Your task to perform on an android device: View the shopping cart on bestbuy. Search for "logitech g502" on bestbuy, select the first entry, and add it to the cart. Image 0: 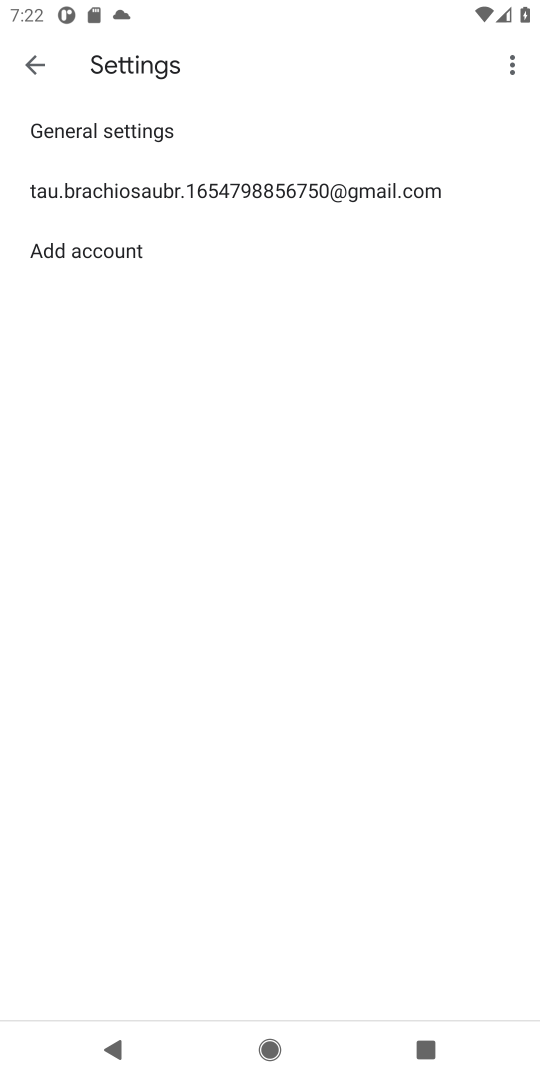
Step 0: click (367, 870)
Your task to perform on an android device: View the shopping cart on bestbuy. Search for "logitech g502" on bestbuy, select the first entry, and add it to the cart. Image 1: 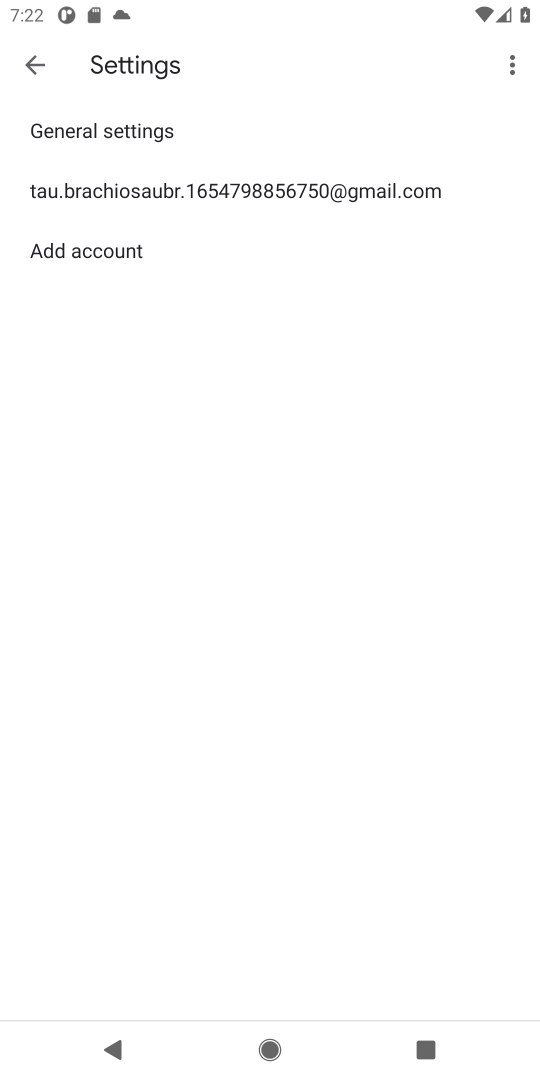
Step 1: press home button
Your task to perform on an android device: View the shopping cart on bestbuy. Search for "logitech g502" on bestbuy, select the first entry, and add it to the cart. Image 2: 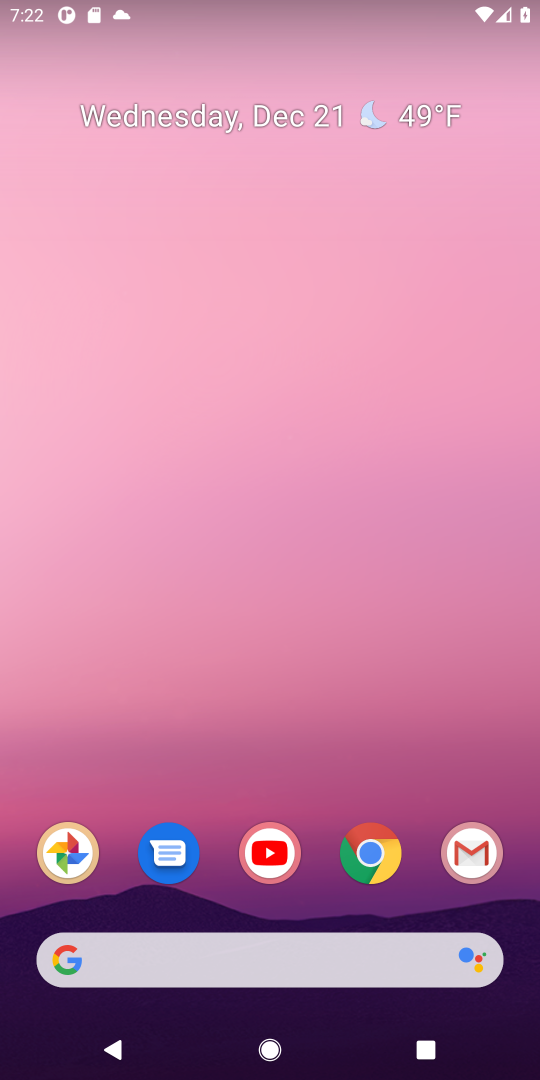
Step 2: click (382, 858)
Your task to perform on an android device: View the shopping cart on bestbuy. Search for "logitech g502" on bestbuy, select the first entry, and add it to the cart. Image 3: 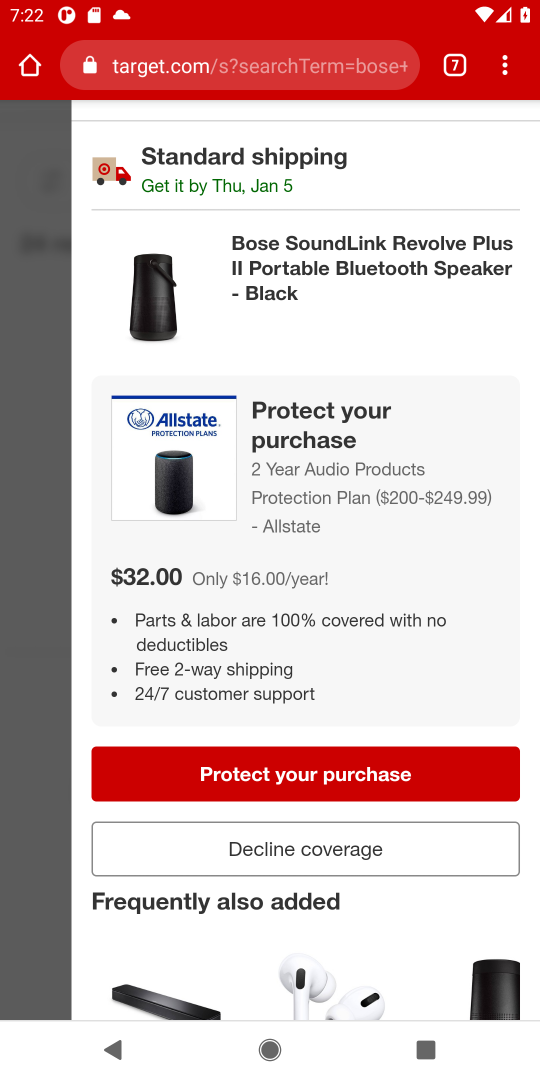
Step 3: click (496, 134)
Your task to perform on an android device: View the shopping cart on bestbuy. Search for "logitech g502" on bestbuy, select the first entry, and add it to the cart. Image 4: 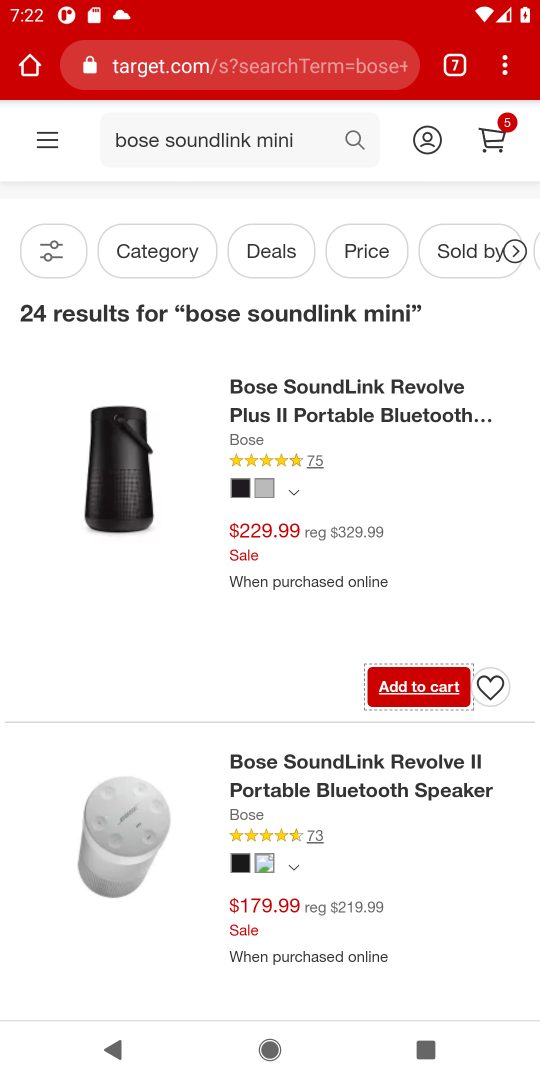
Step 4: click (462, 55)
Your task to perform on an android device: View the shopping cart on bestbuy. Search for "logitech g502" on bestbuy, select the first entry, and add it to the cart. Image 5: 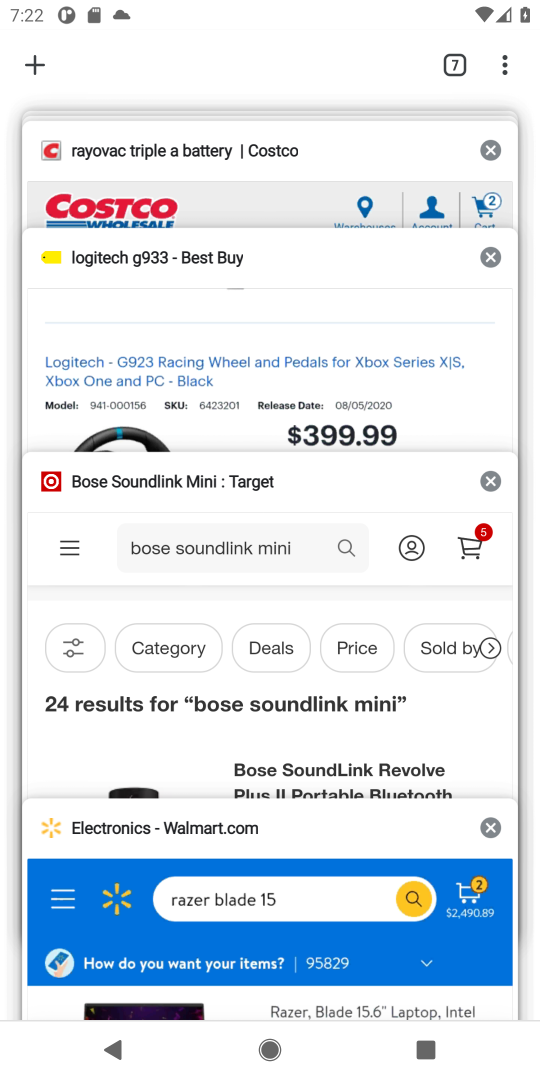
Step 5: click (308, 326)
Your task to perform on an android device: View the shopping cart on bestbuy. Search for "logitech g502" on bestbuy, select the first entry, and add it to the cart. Image 6: 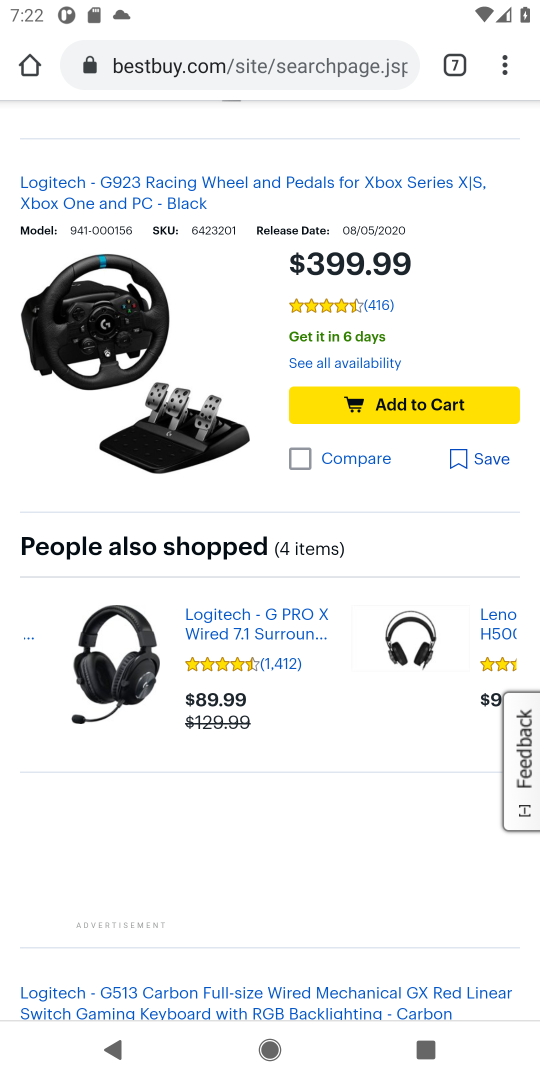
Step 6: drag from (322, 145) to (211, 667)
Your task to perform on an android device: View the shopping cart on bestbuy. Search for "logitech g502" on bestbuy, select the first entry, and add it to the cart. Image 7: 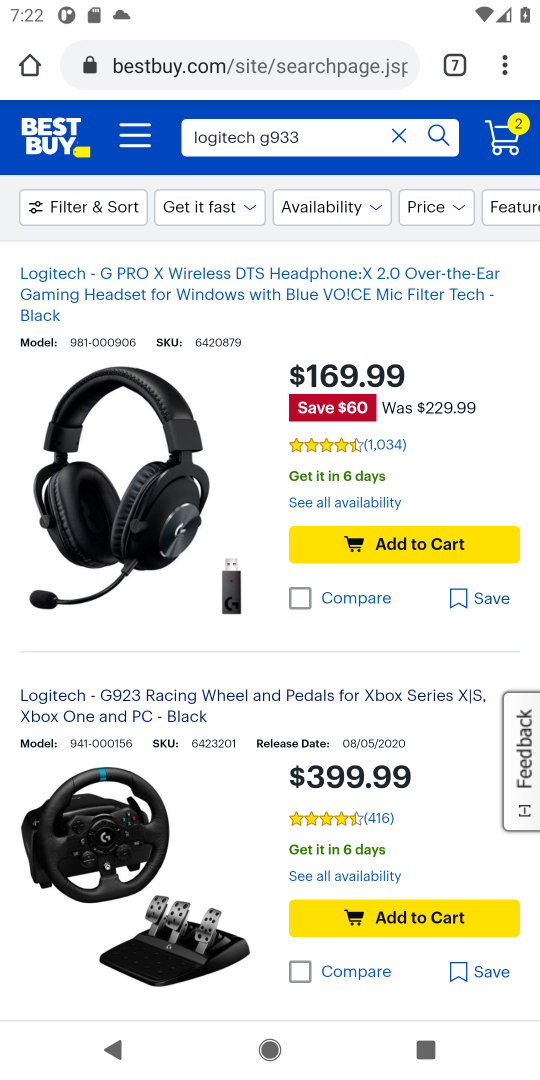
Step 7: click (398, 134)
Your task to perform on an android device: View the shopping cart on bestbuy. Search for "logitech g502" on bestbuy, select the first entry, and add it to the cart. Image 8: 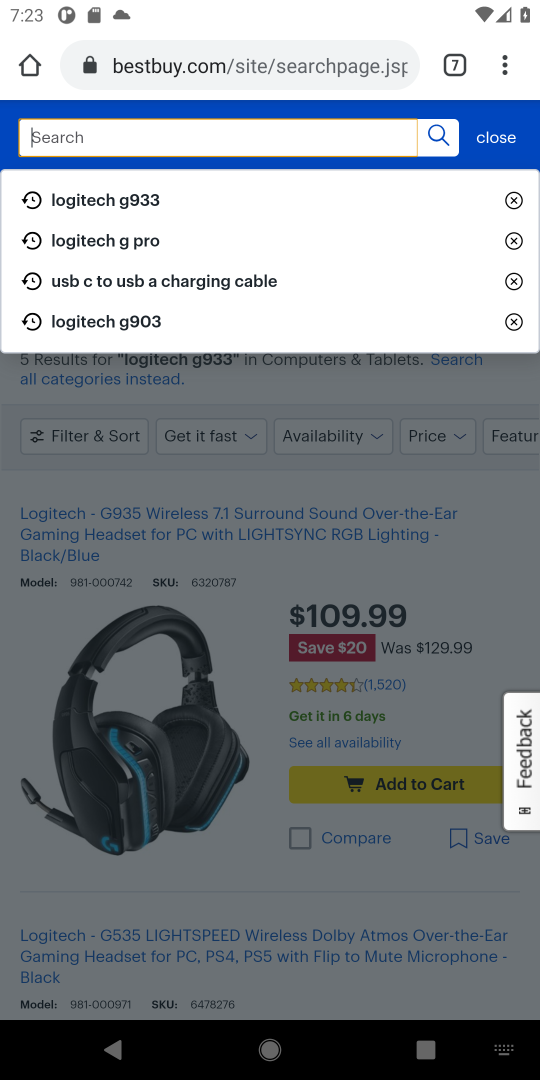
Step 8: type "logitech g502"
Your task to perform on an android device: View the shopping cart on bestbuy. Search for "logitech g502" on bestbuy, select the first entry, and add it to the cart. Image 9: 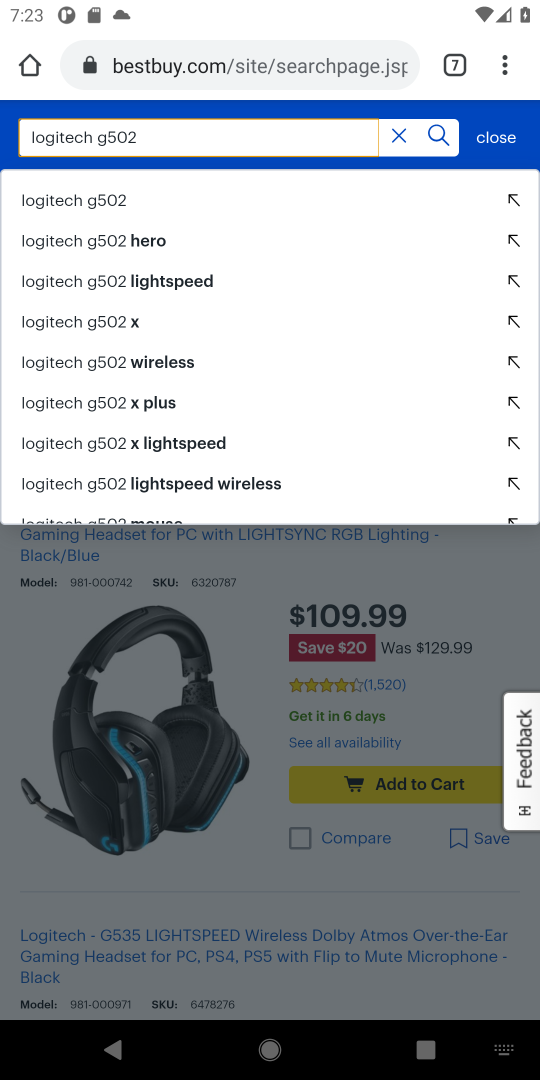
Step 9: click (81, 207)
Your task to perform on an android device: View the shopping cart on bestbuy. Search for "logitech g502" on bestbuy, select the first entry, and add it to the cart. Image 10: 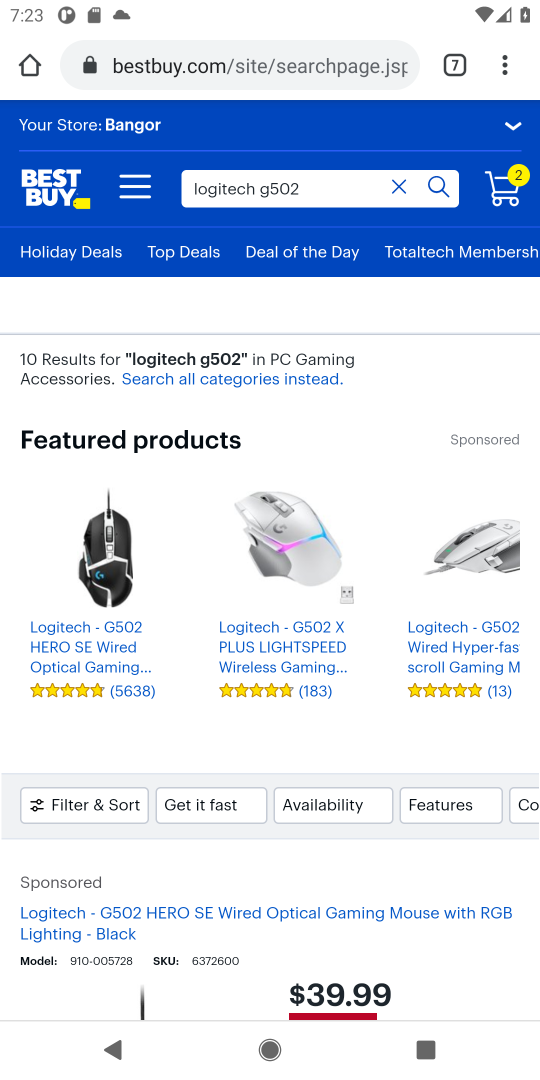
Step 10: drag from (225, 886) to (286, 315)
Your task to perform on an android device: View the shopping cart on bestbuy. Search for "logitech g502" on bestbuy, select the first entry, and add it to the cart. Image 11: 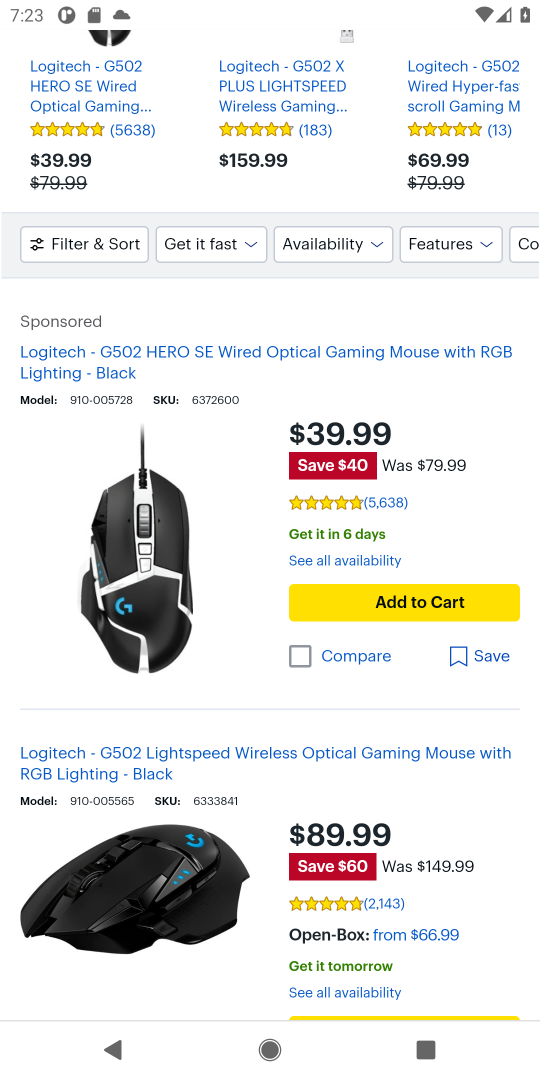
Step 11: click (440, 602)
Your task to perform on an android device: View the shopping cart on bestbuy. Search for "logitech g502" on bestbuy, select the first entry, and add it to the cart. Image 12: 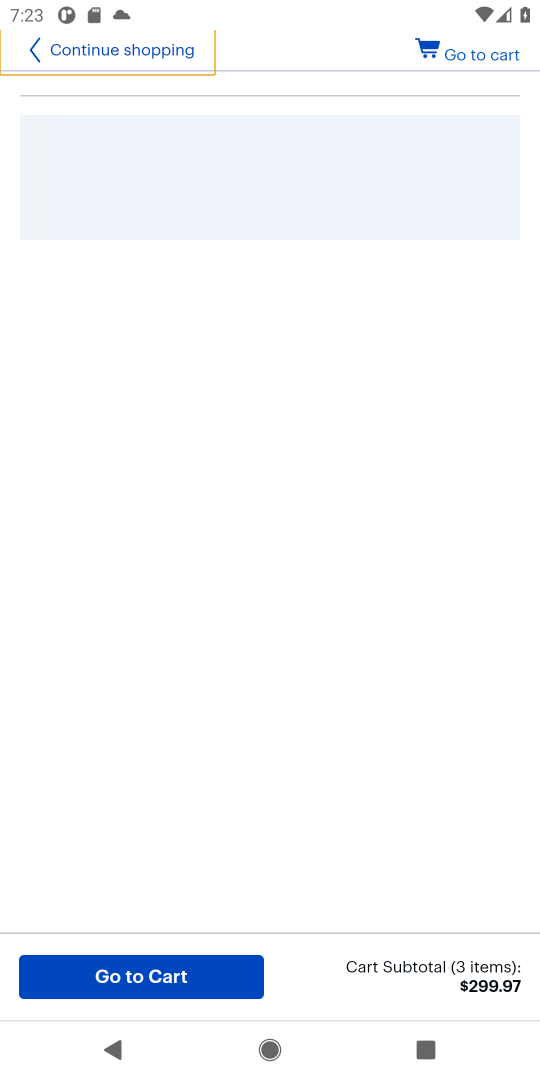
Step 12: task complete